Your task to perform on an android device: turn on translation in the chrome app Image 0: 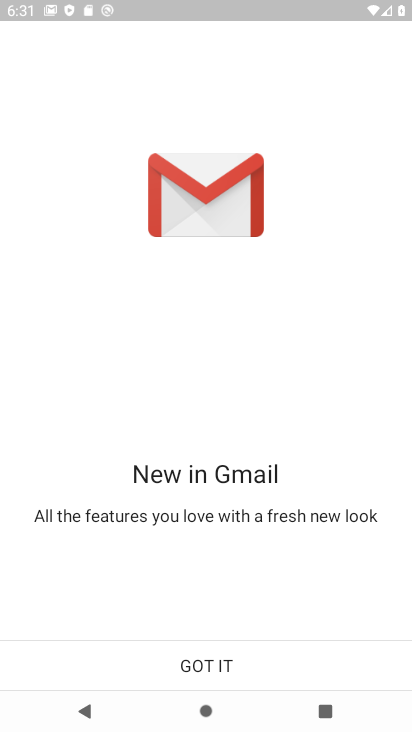
Step 0: press home button
Your task to perform on an android device: turn on translation in the chrome app Image 1: 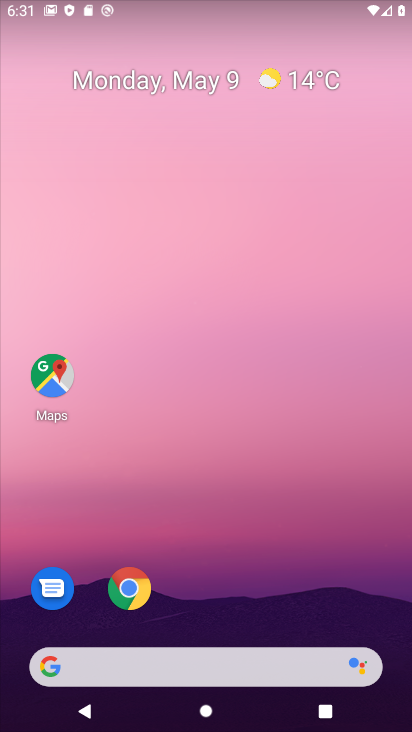
Step 1: drag from (289, 614) to (308, 54)
Your task to perform on an android device: turn on translation in the chrome app Image 2: 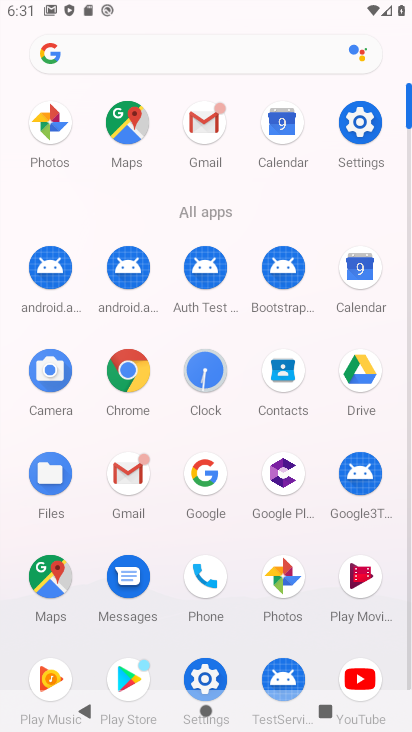
Step 2: click (122, 372)
Your task to perform on an android device: turn on translation in the chrome app Image 3: 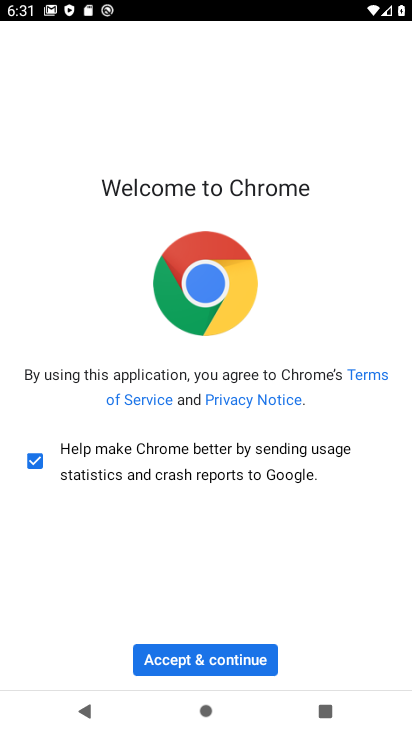
Step 3: click (239, 654)
Your task to perform on an android device: turn on translation in the chrome app Image 4: 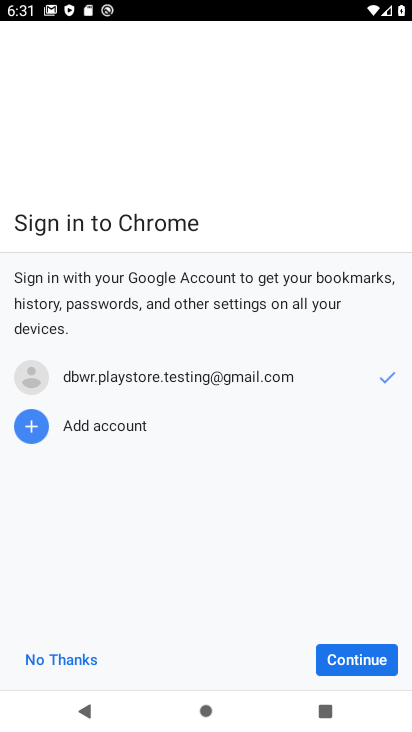
Step 4: click (334, 660)
Your task to perform on an android device: turn on translation in the chrome app Image 5: 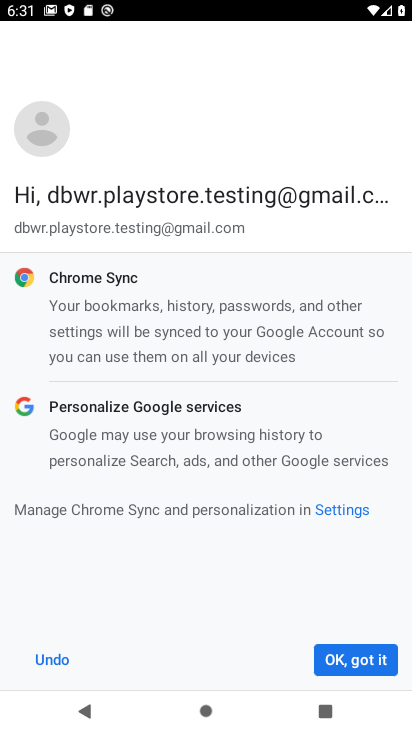
Step 5: click (334, 660)
Your task to perform on an android device: turn on translation in the chrome app Image 6: 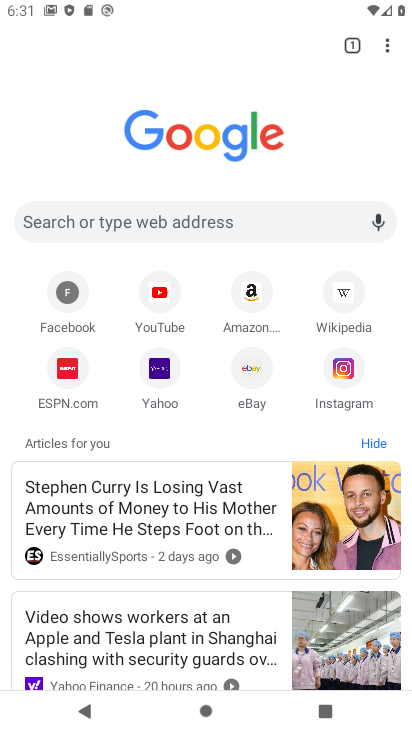
Step 6: click (384, 38)
Your task to perform on an android device: turn on translation in the chrome app Image 7: 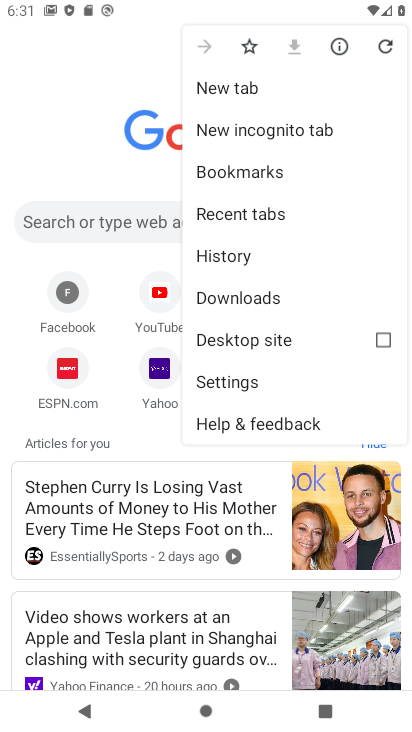
Step 7: click (258, 380)
Your task to perform on an android device: turn on translation in the chrome app Image 8: 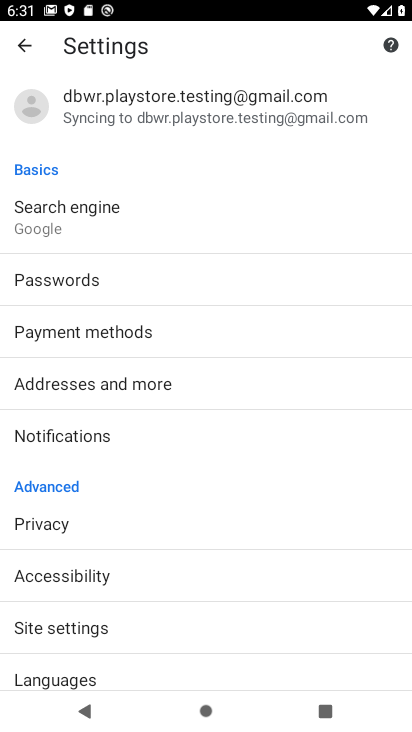
Step 8: click (119, 678)
Your task to perform on an android device: turn on translation in the chrome app Image 9: 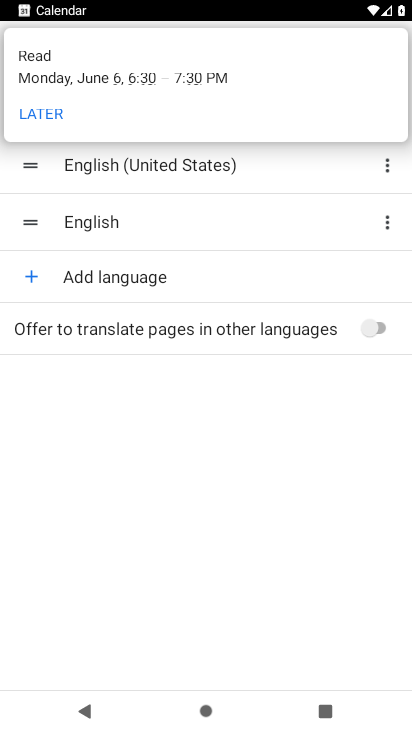
Step 9: click (349, 327)
Your task to perform on an android device: turn on translation in the chrome app Image 10: 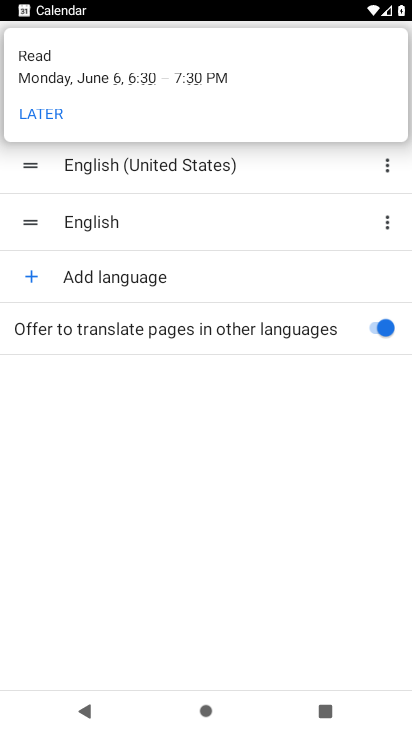
Step 10: task complete